Your task to perform on an android device: Open Amazon Image 0: 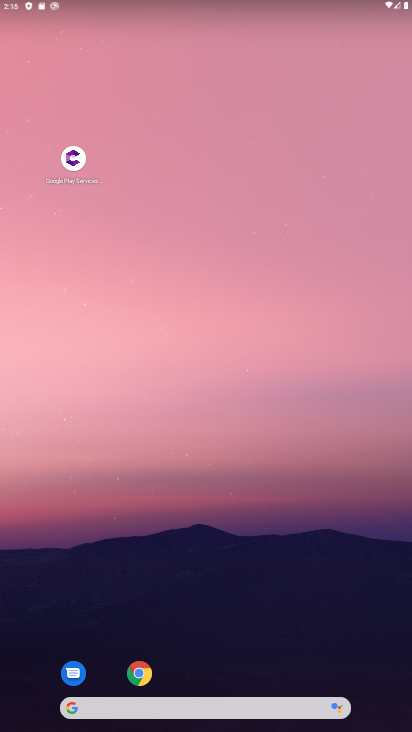
Step 0: press home button
Your task to perform on an android device: Open Amazon Image 1: 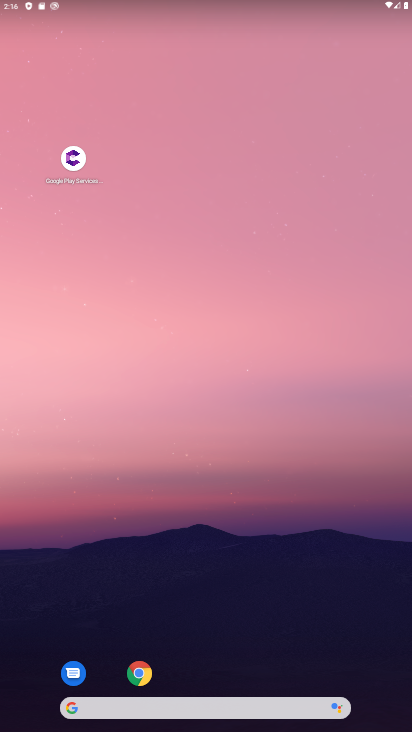
Step 1: press home button
Your task to perform on an android device: Open Amazon Image 2: 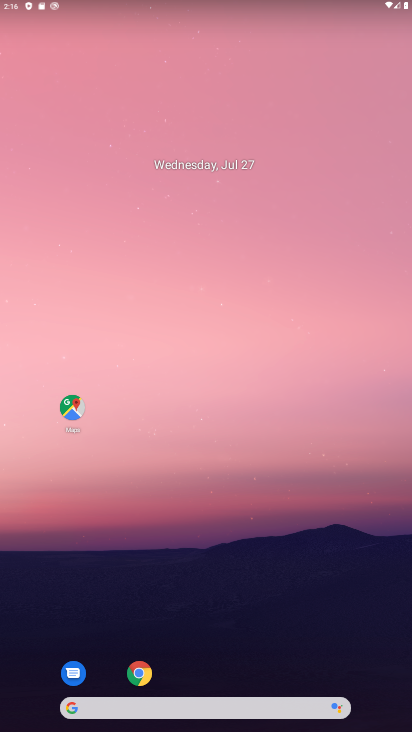
Step 2: click (74, 712)
Your task to perform on an android device: Open Amazon Image 3: 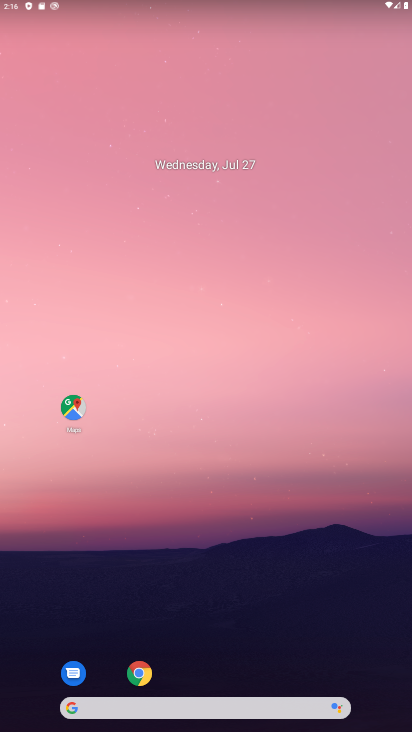
Step 3: click (77, 711)
Your task to perform on an android device: Open Amazon Image 4: 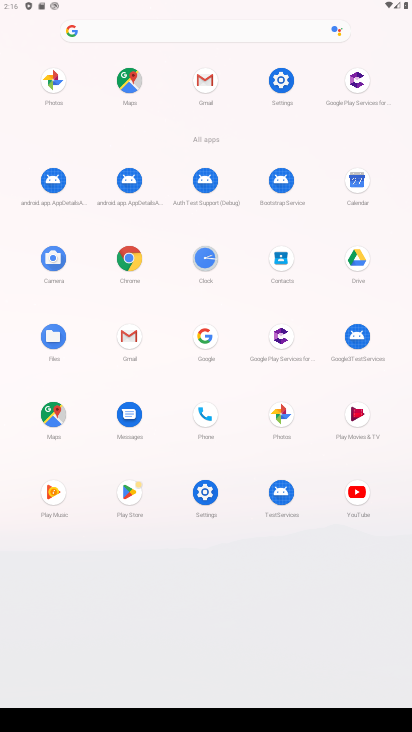
Step 4: type "Amazon"
Your task to perform on an android device: Open Amazon Image 5: 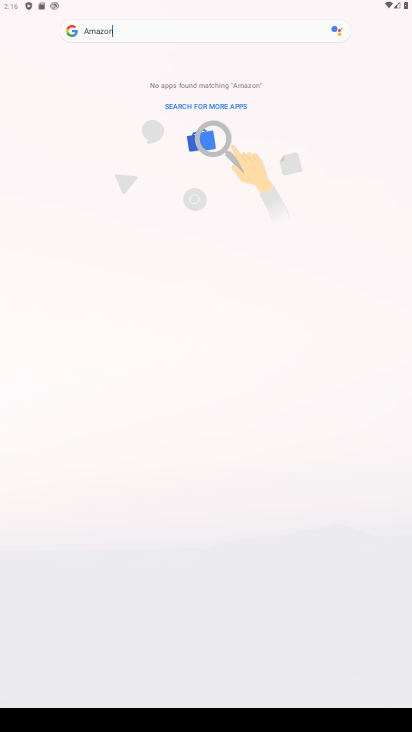
Step 5: press enter
Your task to perform on an android device: Open Amazon Image 6: 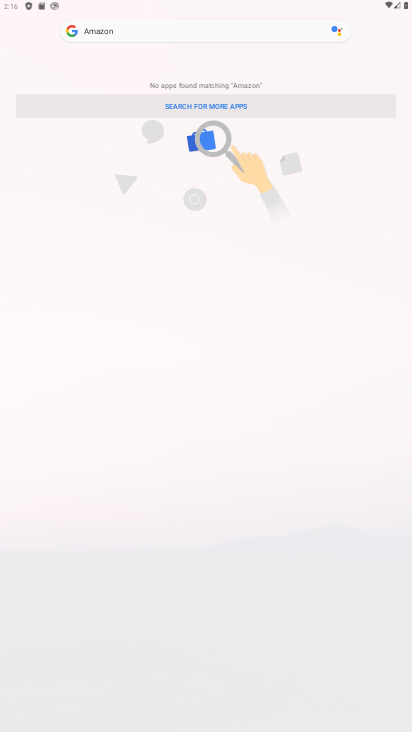
Step 6: drag from (154, 30) to (211, 687)
Your task to perform on an android device: Open Amazon Image 7: 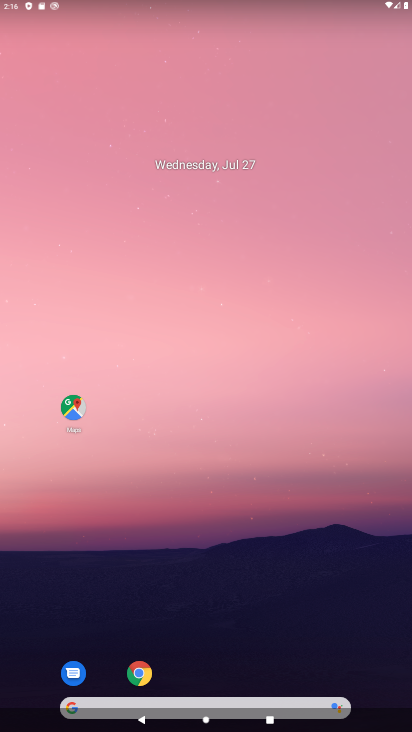
Step 7: drag from (158, 214) to (235, 682)
Your task to perform on an android device: Open Amazon Image 8: 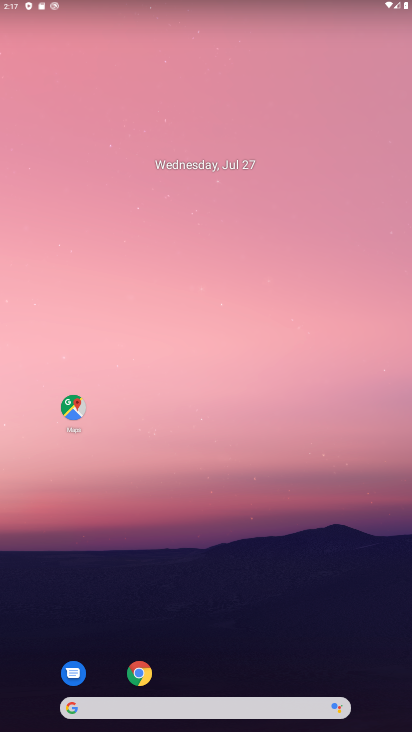
Step 8: drag from (200, 0) to (231, 459)
Your task to perform on an android device: Open Amazon Image 9: 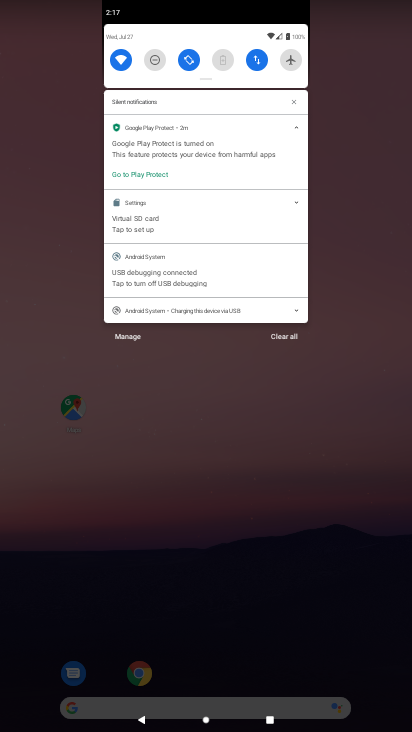
Step 9: drag from (229, 287) to (283, 17)
Your task to perform on an android device: Open Amazon Image 10: 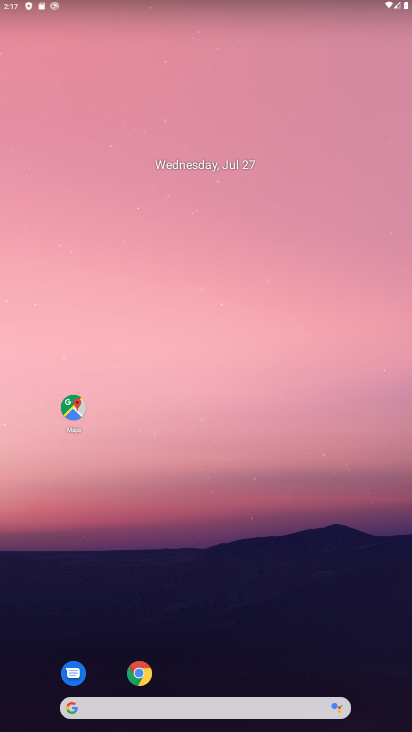
Step 10: click (72, 708)
Your task to perform on an android device: Open Amazon Image 11: 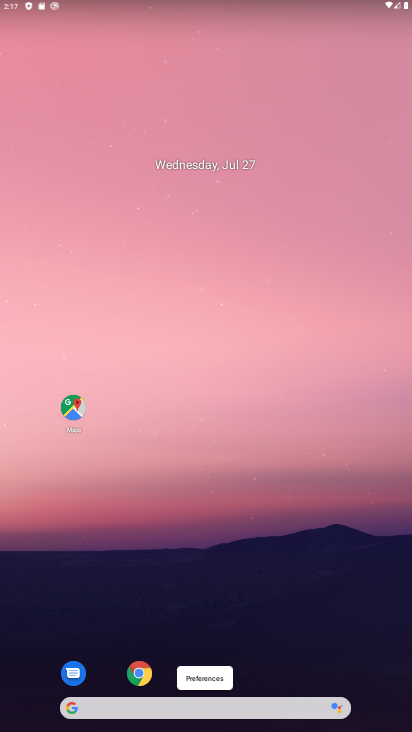
Step 11: click (74, 712)
Your task to perform on an android device: Open Amazon Image 12: 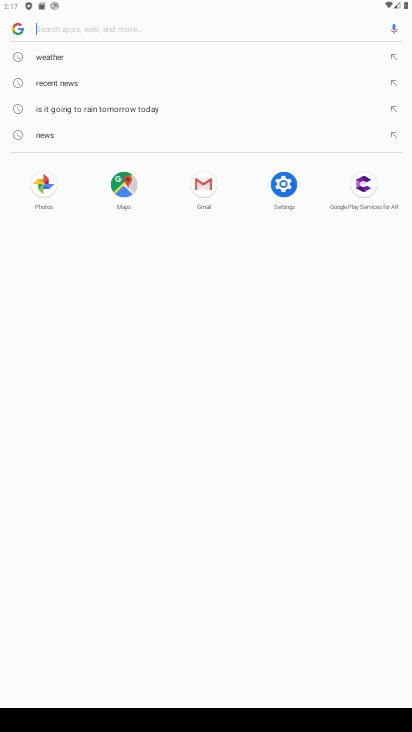
Step 12: type "Amazon"
Your task to perform on an android device: Open Amazon Image 13: 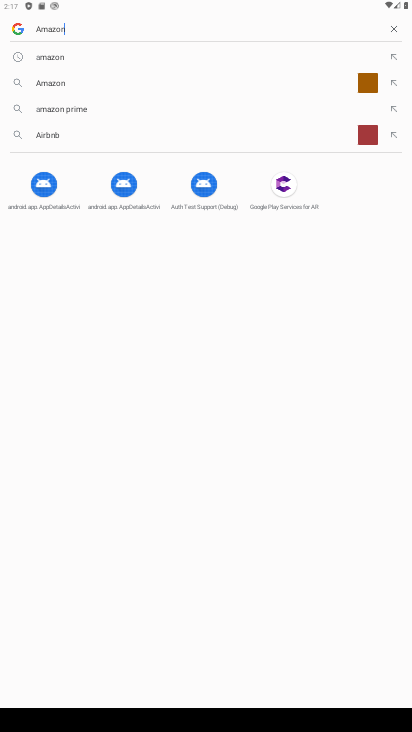
Step 13: press enter
Your task to perform on an android device: Open Amazon Image 14: 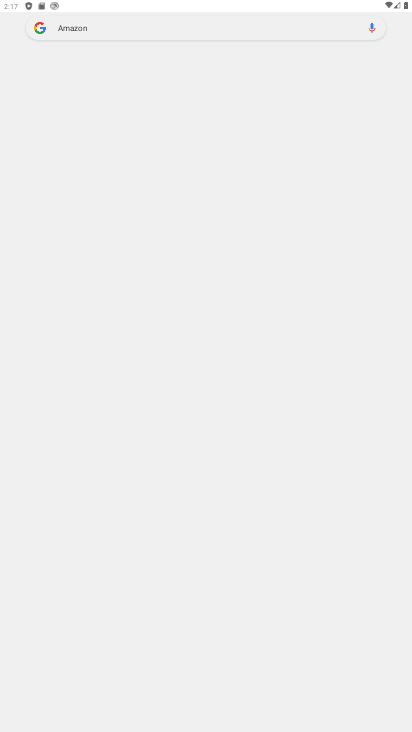
Step 14: click (62, 53)
Your task to perform on an android device: Open Amazon Image 15: 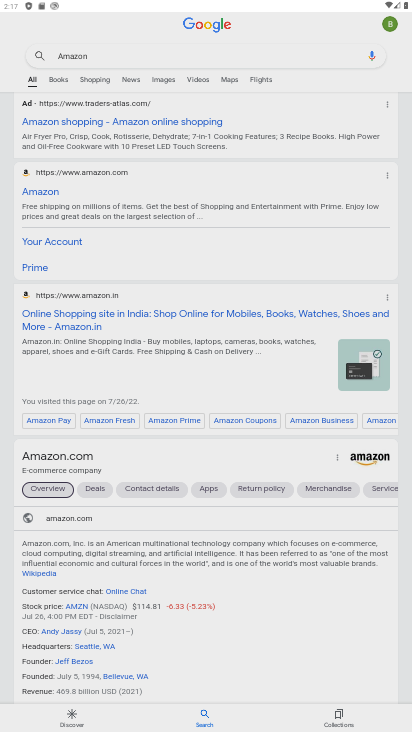
Step 15: click (74, 123)
Your task to perform on an android device: Open Amazon Image 16: 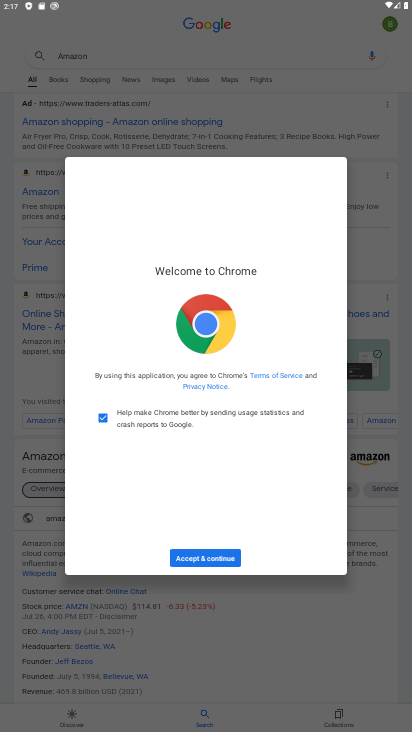
Step 16: click (194, 560)
Your task to perform on an android device: Open Amazon Image 17: 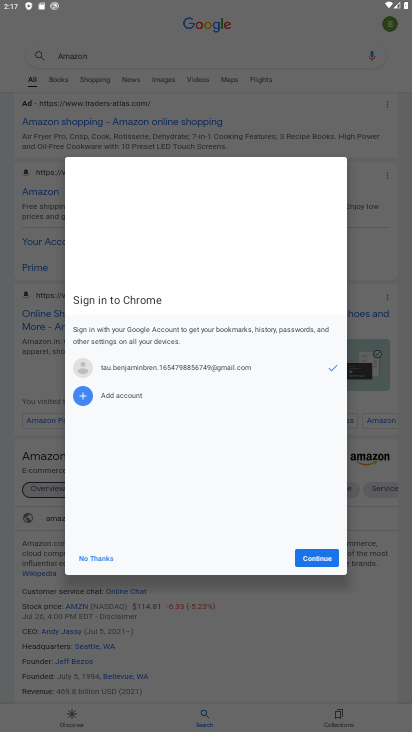
Step 17: click (313, 553)
Your task to perform on an android device: Open Amazon Image 18: 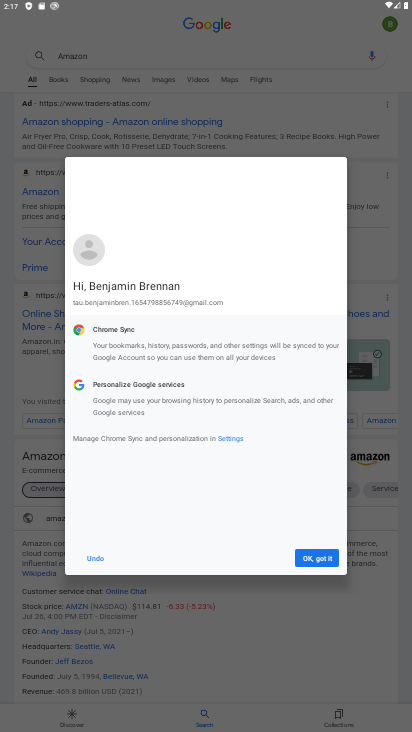
Step 18: click (299, 561)
Your task to perform on an android device: Open Amazon Image 19: 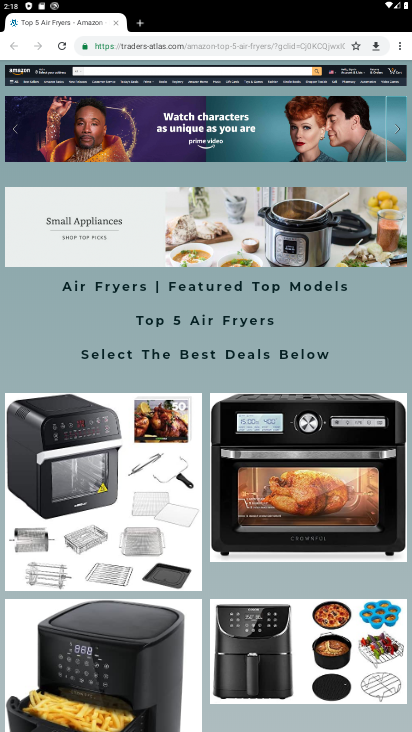
Step 19: task complete